Your task to perform on an android device: check android version Image 0: 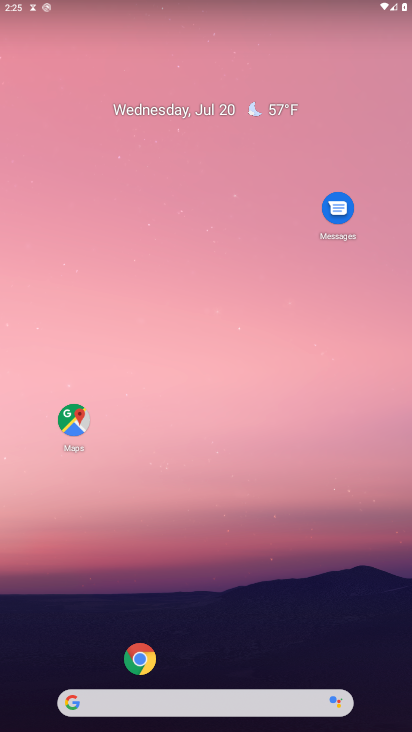
Step 0: drag from (91, 611) to (248, 14)
Your task to perform on an android device: check android version Image 1: 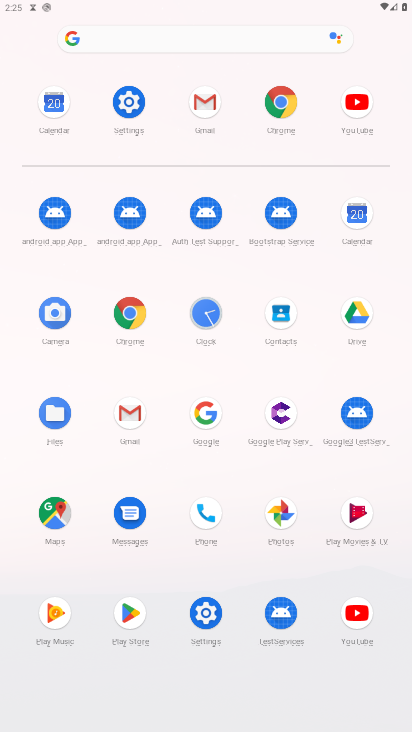
Step 1: click (195, 621)
Your task to perform on an android device: check android version Image 2: 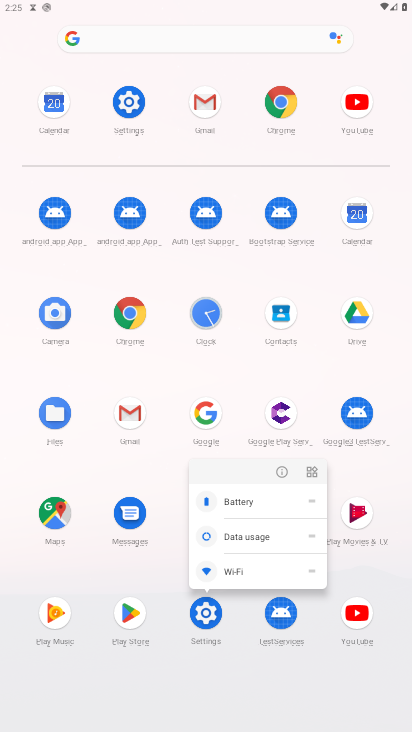
Step 2: click (221, 613)
Your task to perform on an android device: check android version Image 3: 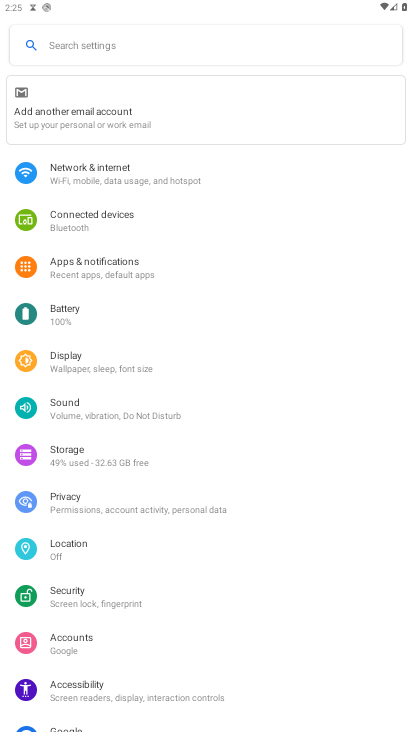
Step 3: drag from (203, 703) to (227, 418)
Your task to perform on an android device: check android version Image 4: 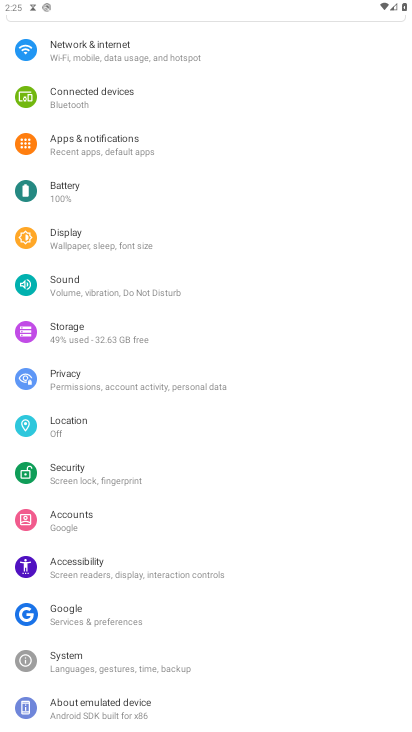
Step 4: click (49, 707)
Your task to perform on an android device: check android version Image 5: 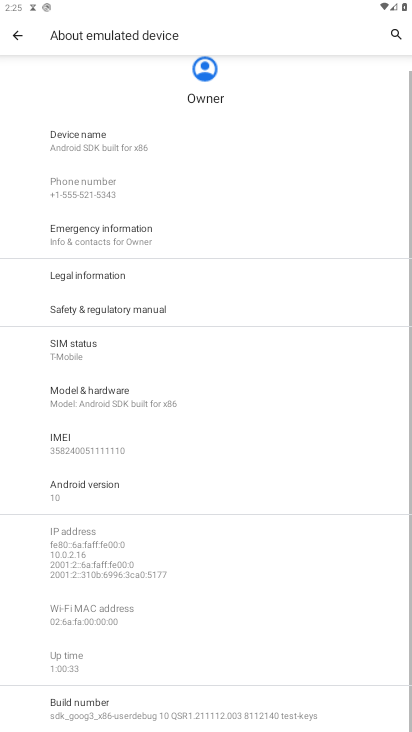
Step 5: click (103, 486)
Your task to perform on an android device: check android version Image 6: 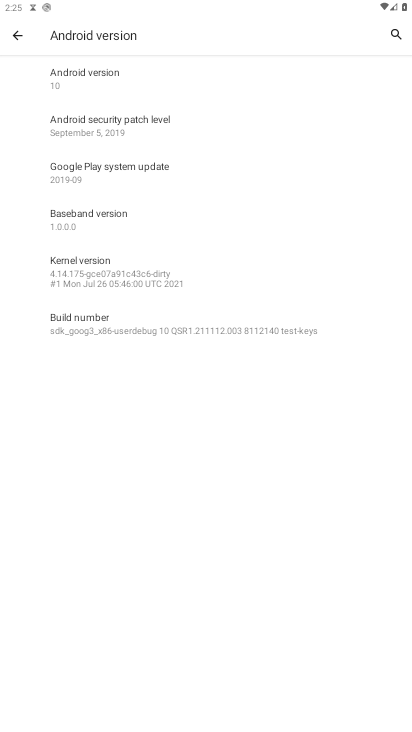
Step 6: task complete